Your task to perform on an android device: Show me popular games on the Play Store Image 0: 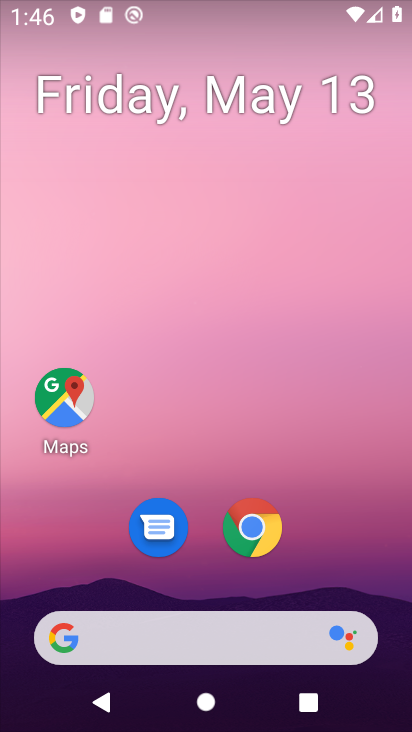
Step 0: drag from (163, 575) to (367, 3)
Your task to perform on an android device: Show me popular games on the Play Store Image 1: 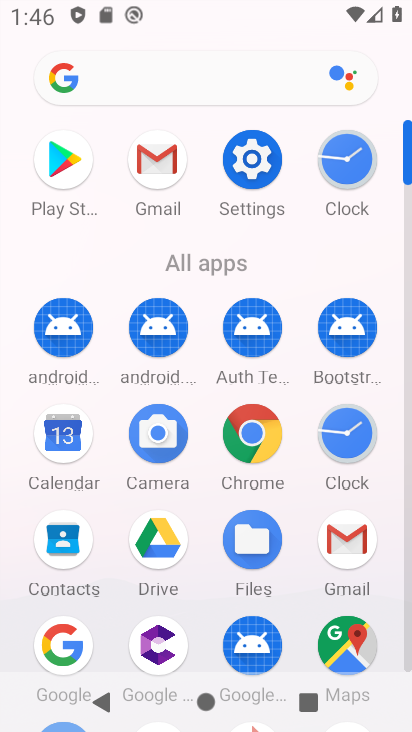
Step 1: click (64, 158)
Your task to perform on an android device: Show me popular games on the Play Store Image 2: 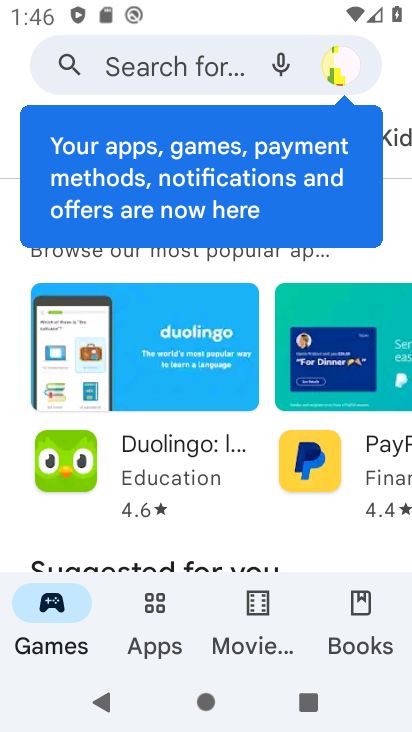
Step 2: click (257, 524)
Your task to perform on an android device: Show me popular games on the Play Store Image 3: 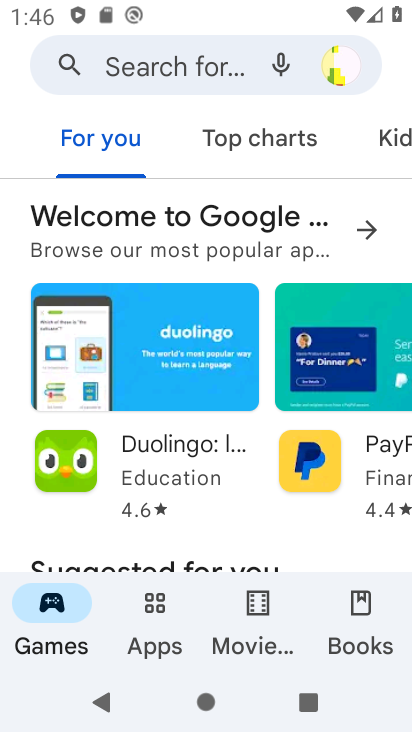
Step 3: click (257, 524)
Your task to perform on an android device: Show me popular games on the Play Store Image 4: 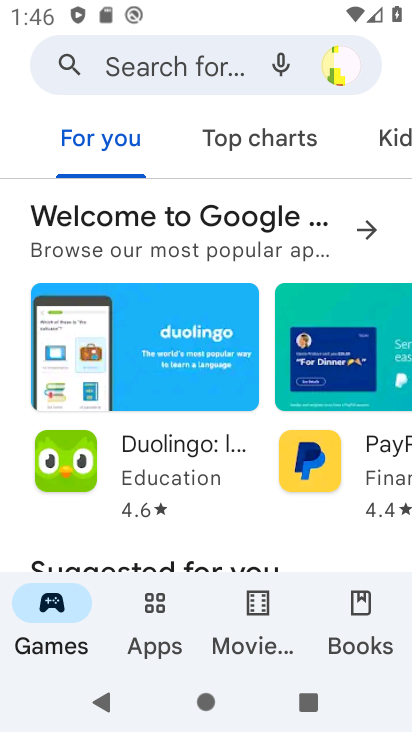
Step 4: click (249, 144)
Your task to perform on an android device: Show me popular games on the Play Store Image 5: 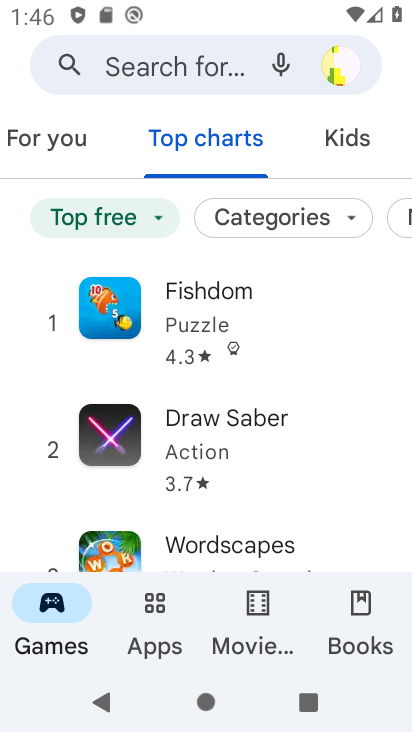
Step 5: task complete